Your task to perform on an android device: search for starred emails in the gmail app Image 0: 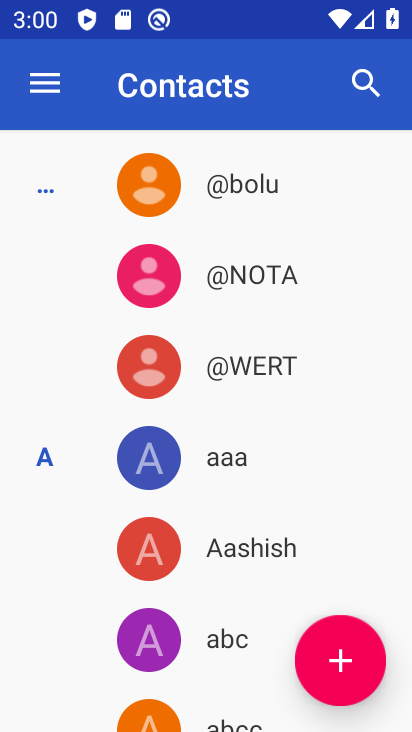
Step 0: press home button
Your task to perform on an android device: search for starred emails in the gmail app Image 1: 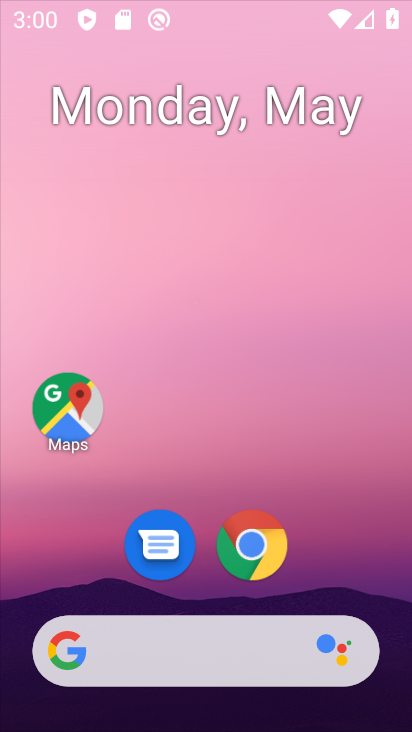
Step 1: drag from (322, 272) to (322, 155)
Your task to perform on an android device: search for starred emails in the gmail app Image 2: 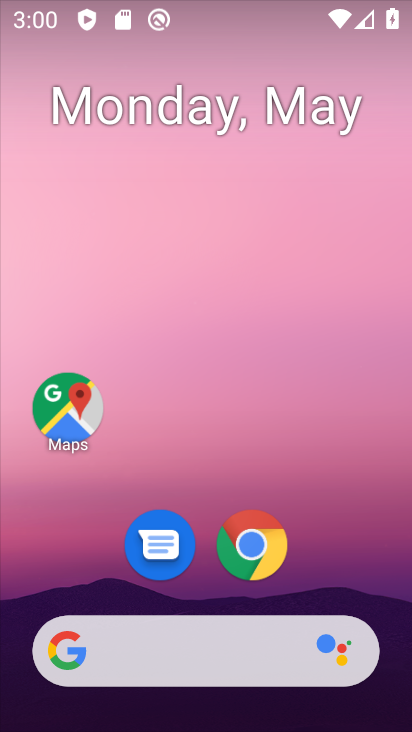
Step 2: drag from (229, 349) to (267, 27)
Your task to perform on an android device: search for starred emails in the gmail app Image 3: 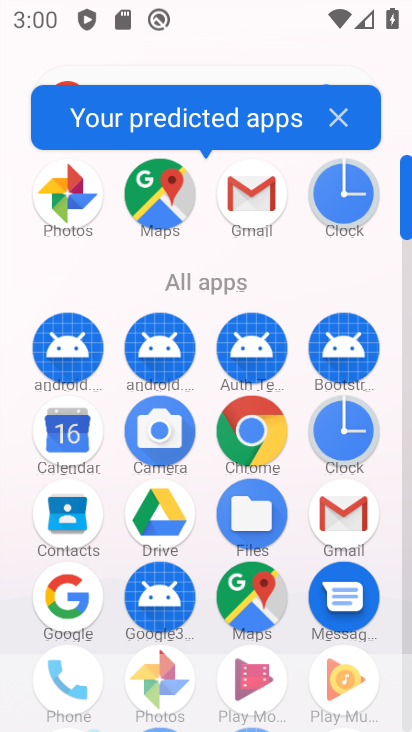
Step 3: click (239, 212)
Your task to perform on an android device: search for starred emails in the gmail app Image 4: 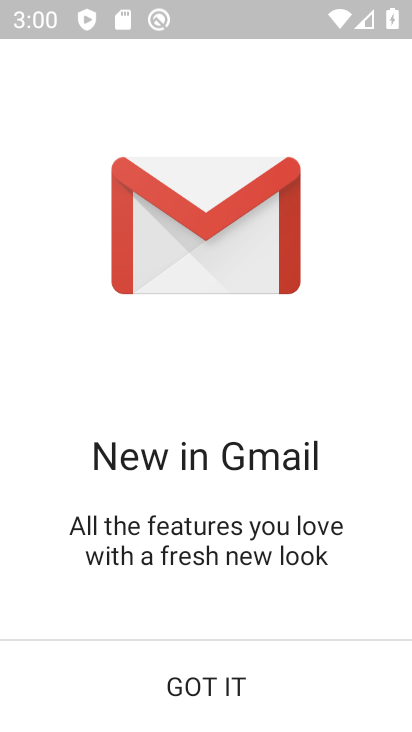
Step 4: click (193, 675)
Your task to perform on an android device: search for starred emails in the gmail app Image 5: 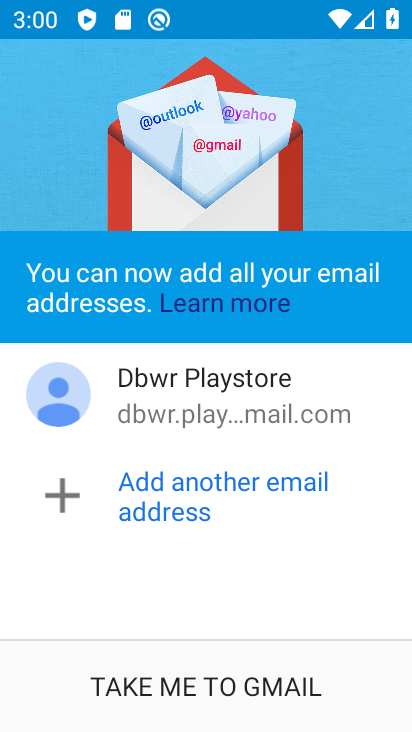
Step 5: click (208, 687)
Your task to perform on an android device: search for starred emails in the gmail app Image 6: 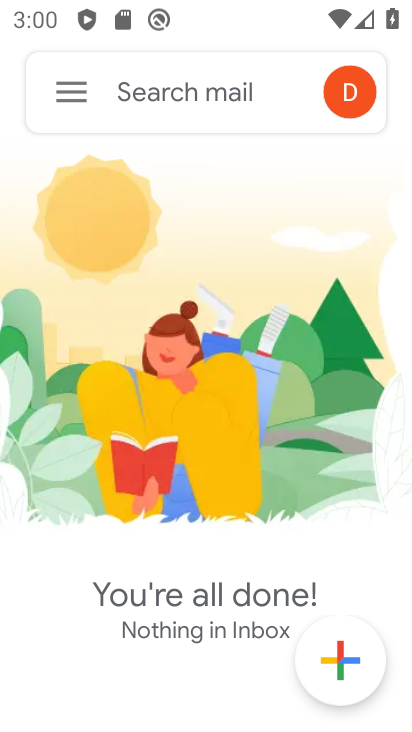
Step 6: click (76, 83)
Your task to perform on an android device: search for starred emails in the gmail app Image 7: 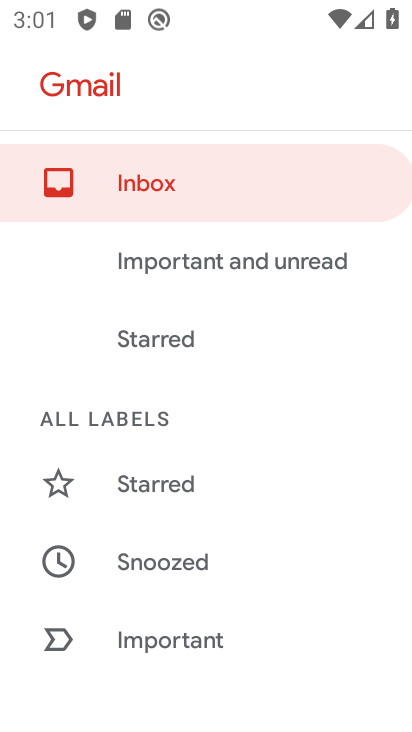
Step 7: click (179, 485)
Your task to perform on an android device: search for starred emails in the gmail app Image 8: 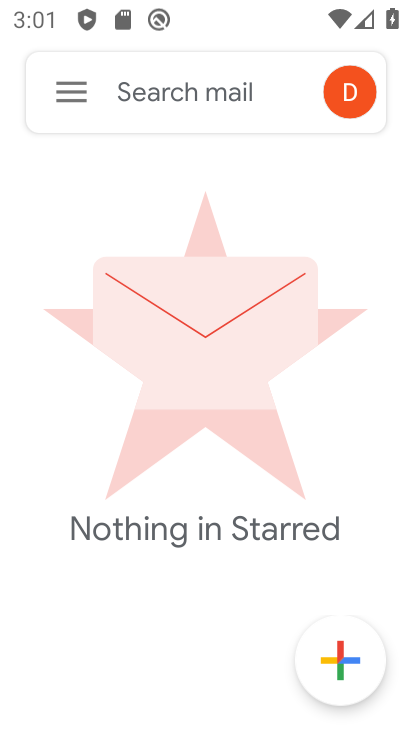
Step 8: task complete